Your task to perform on an android device: toggle pop-ups in chrome Image 0: 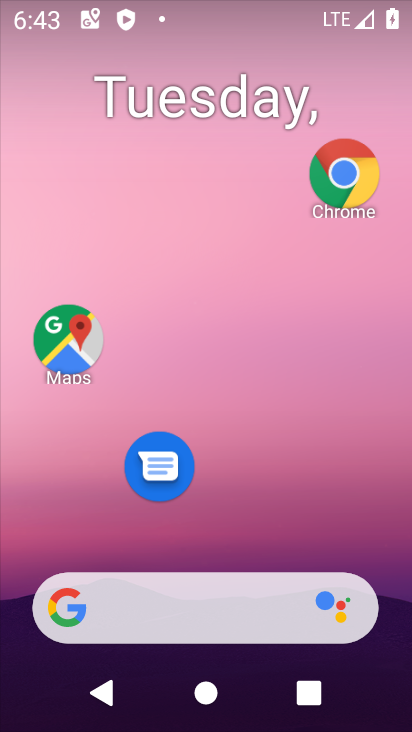
Step 0: press home button
Your task to perform on an android device: toggle pop-ups in chrome Image 1: 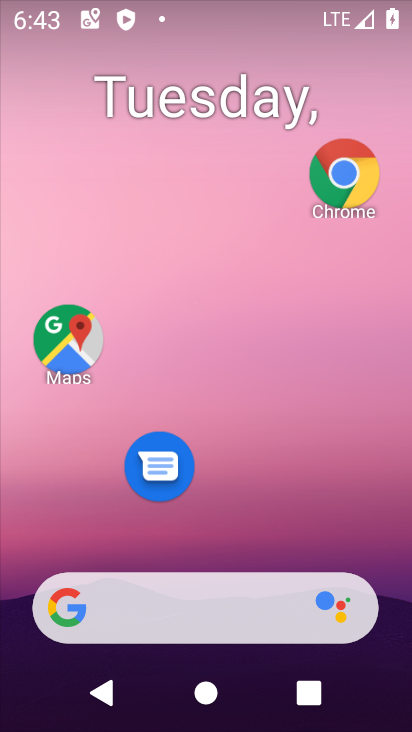
Step 1: click (370, 174)
Your task to perform on an android device: toggle pop-ups in chrome Image 2: 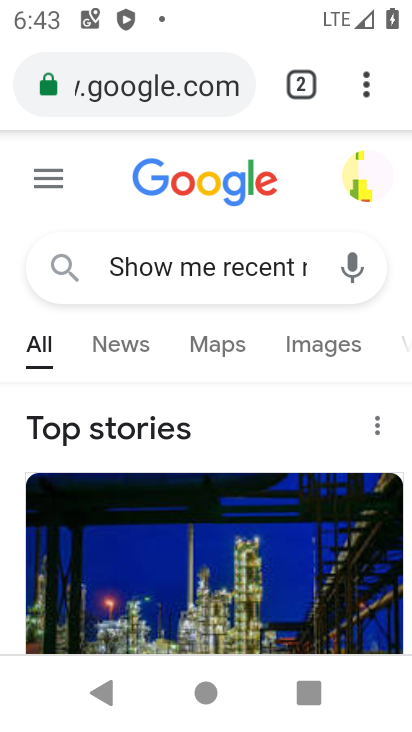
Step 2: drag from (363, 74) to (276, 517)
Your task to perform on an android device: toggle pop-ups in chrome Image 3: 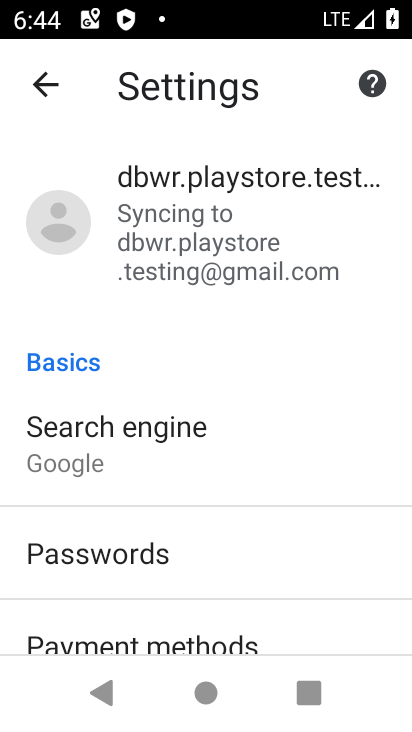
Step 3: drag from (239, 569) to (338, 113)
Your task to perform on an android device: toggle pop-ups in chrome Image 4: 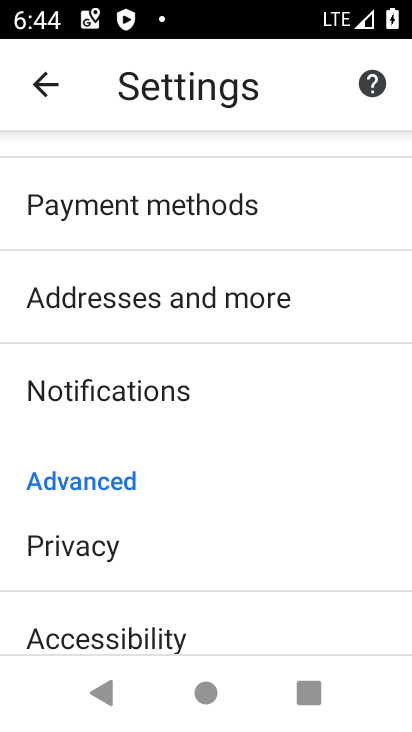
Step 4: drag from (291, 220) to (219, 728)
Your task to perform on an android device: toggle pop-ups in chrome Image 5: 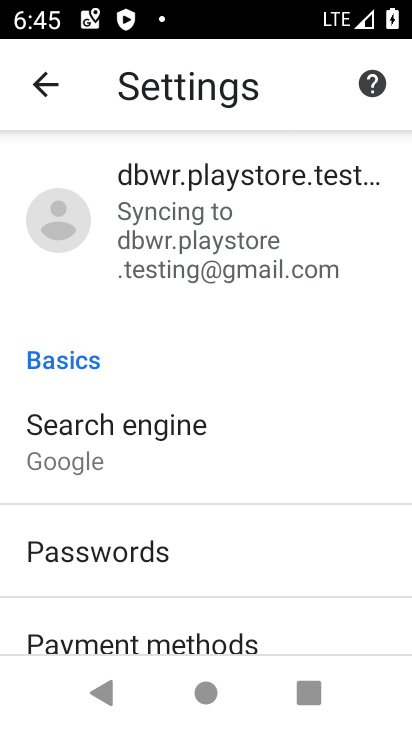
Step 5: drag from (257, 560) to (244, 299)
Your task to perform on an android device: toggle pop-ups in chrome Image 6: 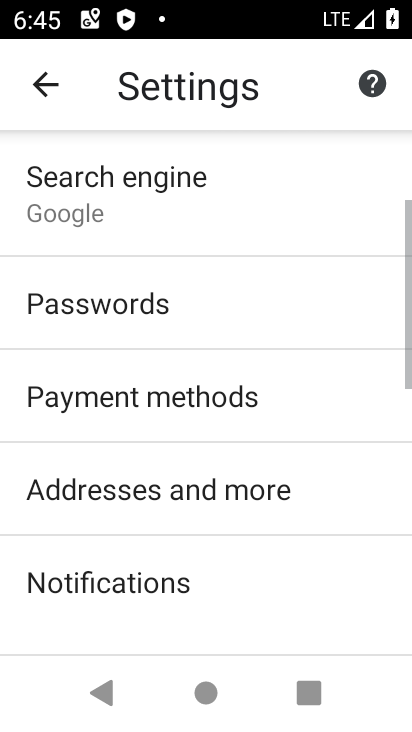
Step 6: drag from (260, 485) to (229, 259)
Your task to perform on an android device: toggle pop-ups in chrome Image 7: 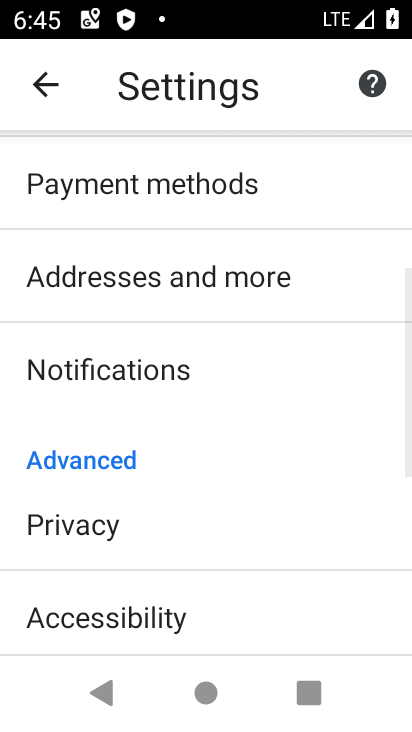
Step 7: drag from (188, 564) to (174, 301)
Your task to perform on an android device: toggle pop-ups in chrome Image 8: 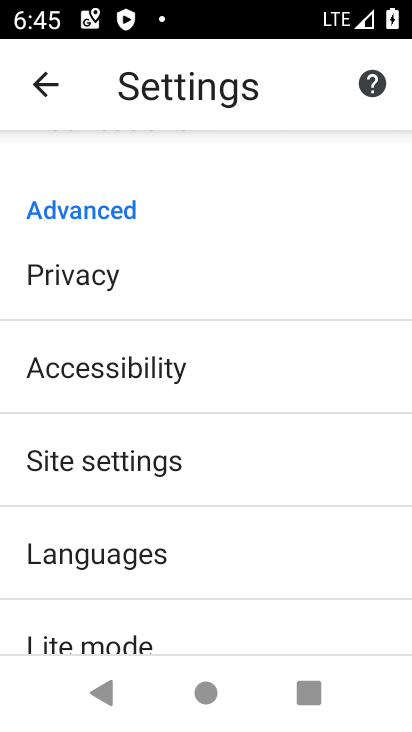
Step 8: click (159, 467)
Your task to perform on an android device: toggle pop-ups in chrome Image 9: 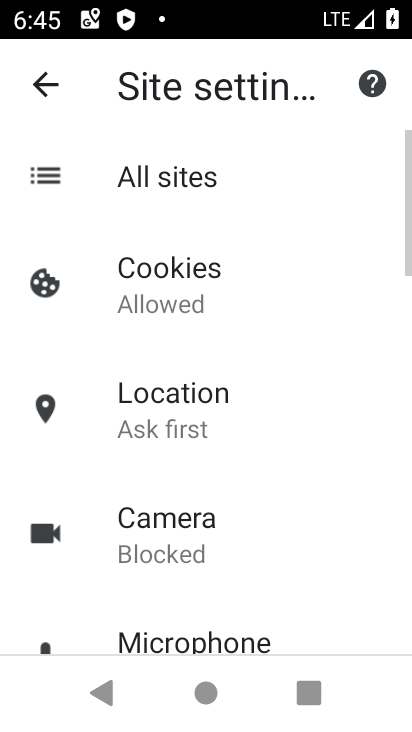
Step 9: drag from (213, 593) to (202, 199)
Your task to perform on an android device: toggle pop-ups in chrome Image 10: 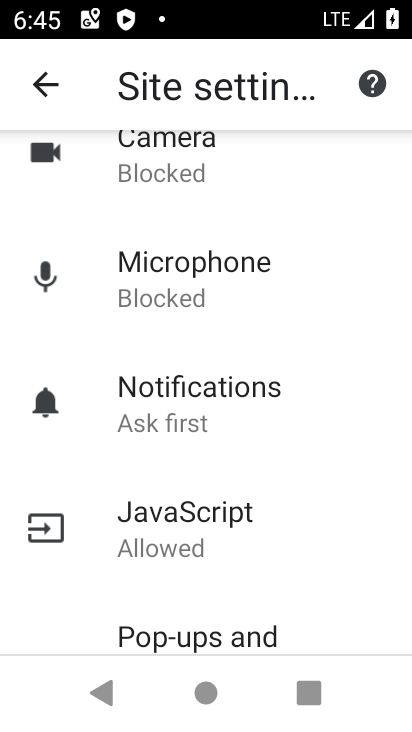
Step 10: drag from (281, 613) to (248, 545)
Your task to perform on an android device: toggle pop-ups in chrome Image 11: 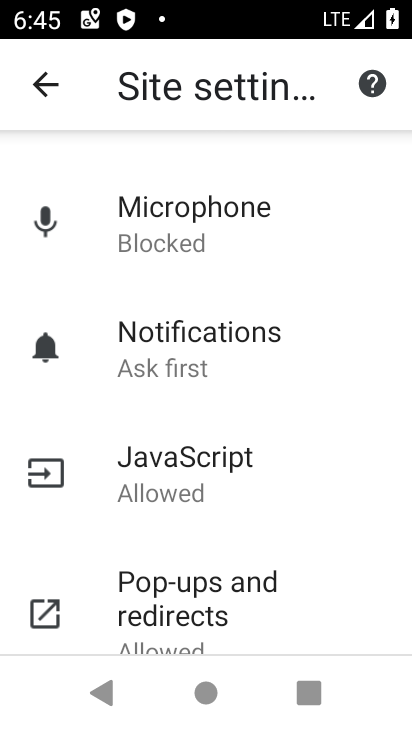
Step 11: drag from (274, 549) to (262, 295)
Your task to perform on an android device: toggle pop-ups in chrome Image 12: 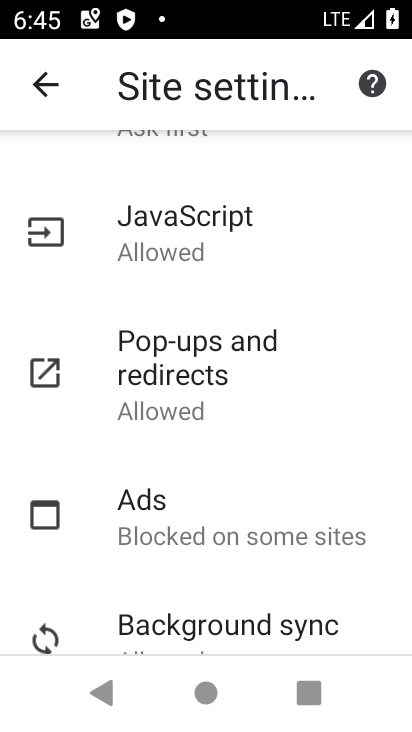
Step 12: click (205, 380)
Your task to perform on an android device: toggle pop-ups in chrome Image 13: 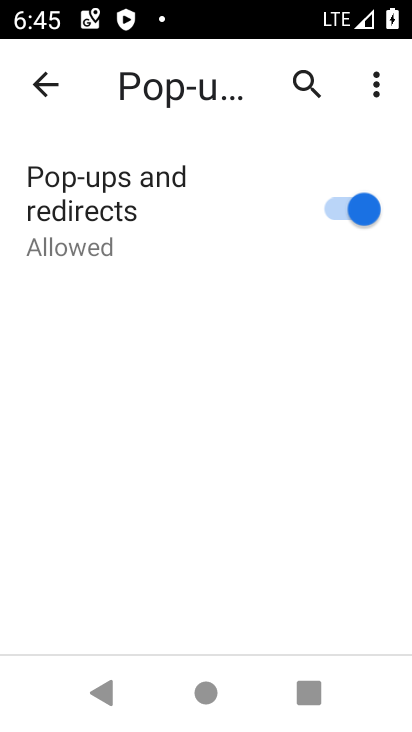
Step 13: click (221, 214)
Your task to perform on an android device: toggle pop-ups in chrome Image 14: 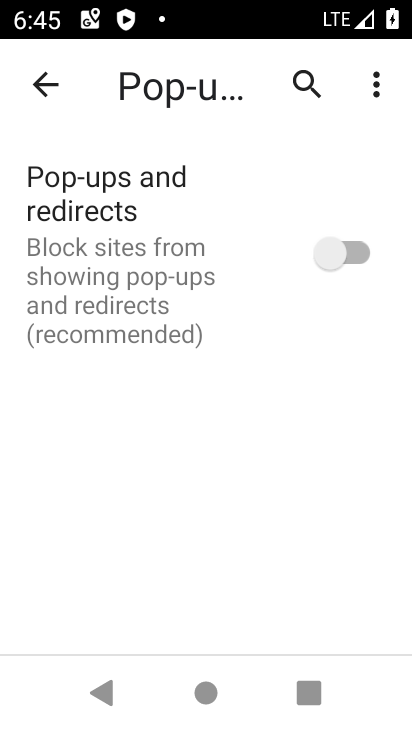
Step 14: task complete